Your task to perform on an android device: Go to Android settings Image 0: 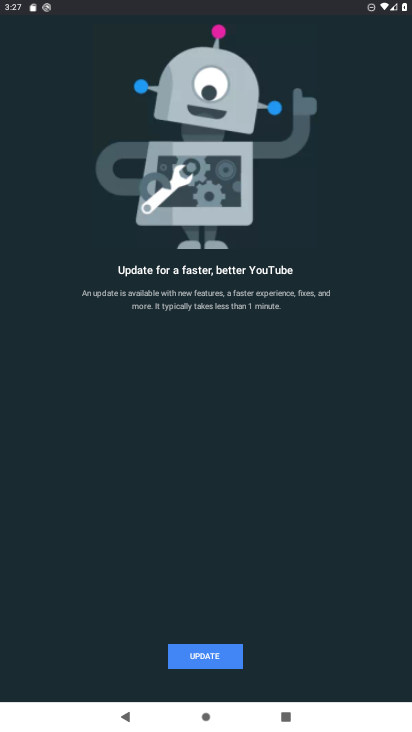
Step 0: press home button
Your task to perform on an android device: Go to Android settings Image 1: 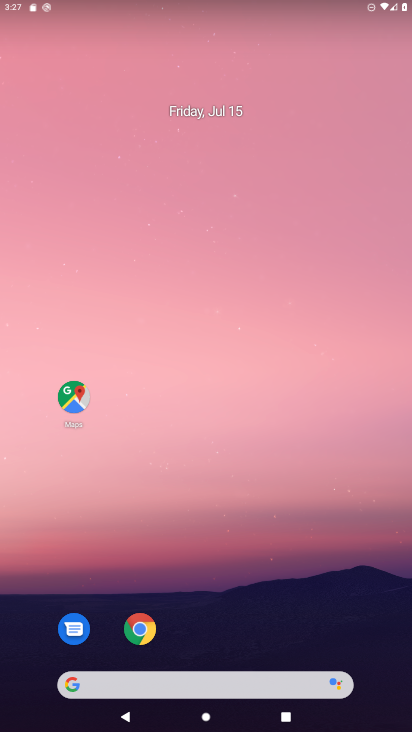
Step 1: drag from (247, 529) to (109, 1)
Your task to perform on an android device: Go to Android settings Image 2: 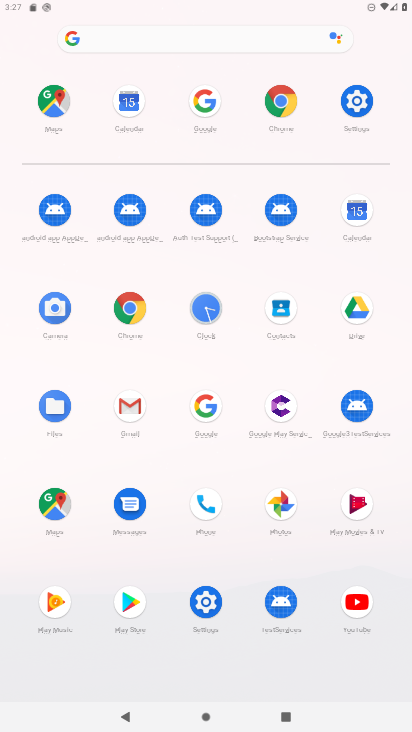
Step 2: click (345, 99)
Your task to perform on an android device: Go to Android settings Image 3: 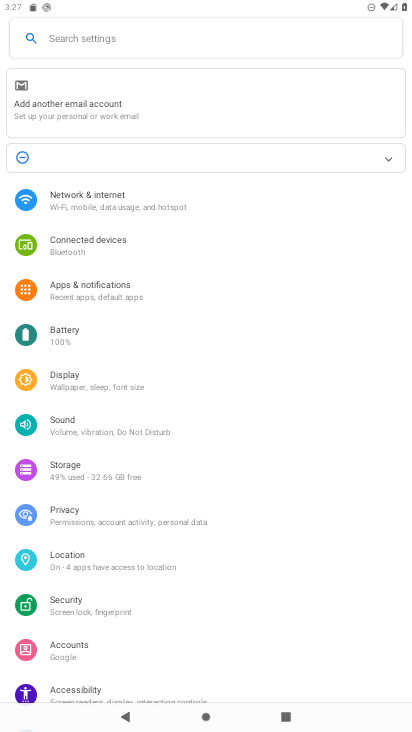
Step 3: task complete